Your task to perform on an android device: turn off data saver in the chrome app Image 0: 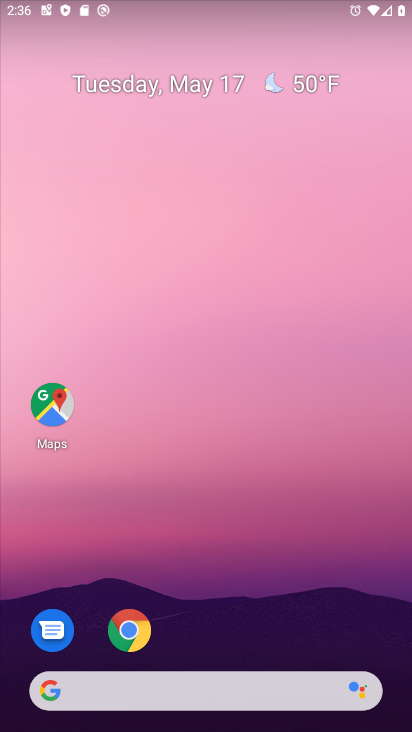
Step 0: click (135, 631)
Your task to perform on an android device: turn off data saver in the chrome app Image 1: 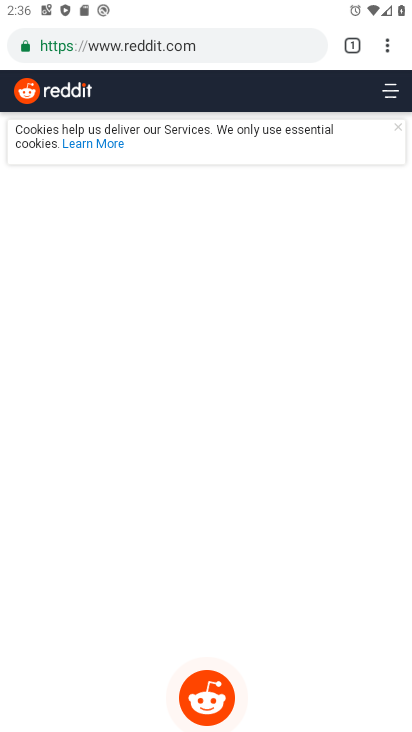
Step 1: click (387, 49)
Your task to perform on an android device: turn off data saver in the chrome app Image 2: 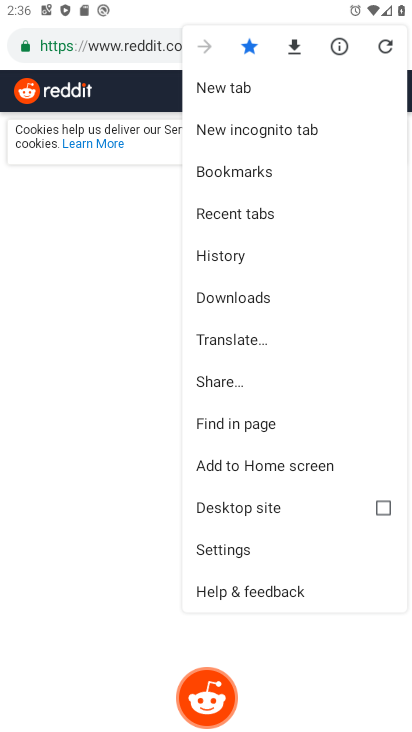
Step 2: click (216, 551)
Your task to perform on an android device: turn off data saver in the chrome app Image 3: 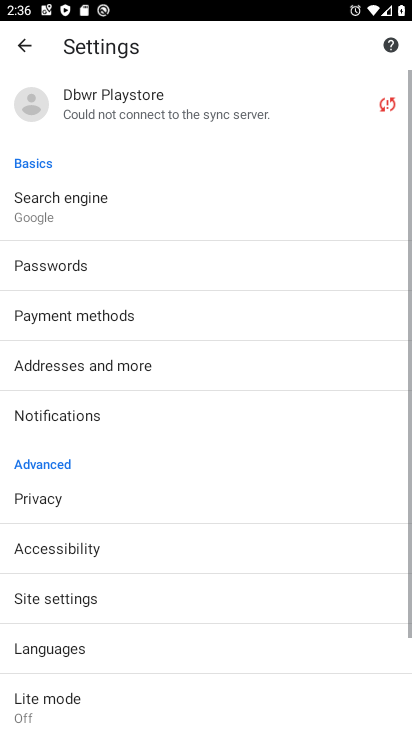
Step 3: drag from (73, 714) to (74, 412)
Your task to perform on an android device: turn off data saver in the chrome app Image 4: 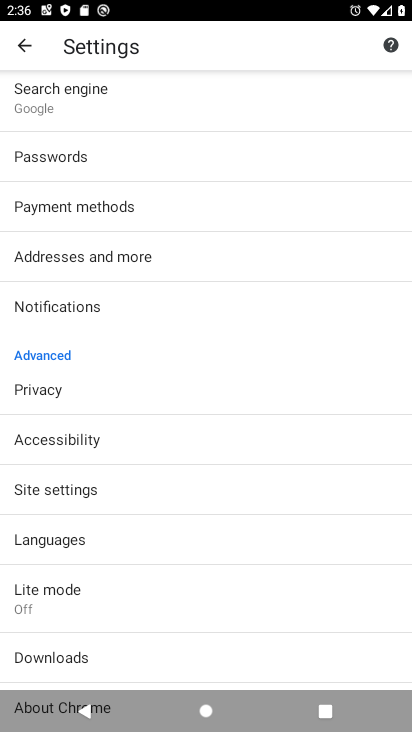
Step 4: click (30, 606)
Your task to perform on an android device: turn off data saver in the chrome app Image 5: 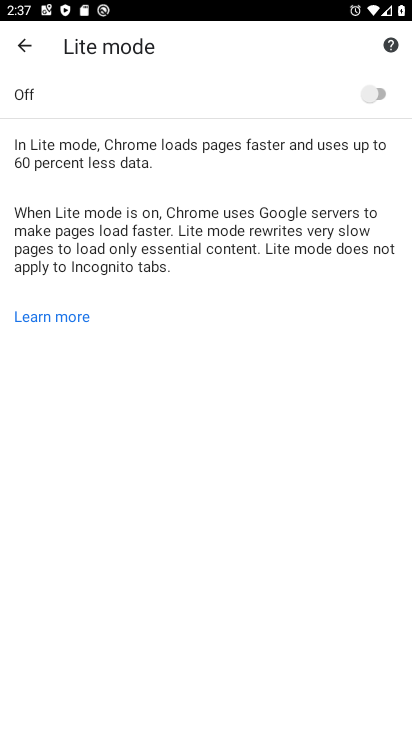
Step 5: task complete